Your task to perform on an android device: Open the calendar and show me this week's events Image 0: 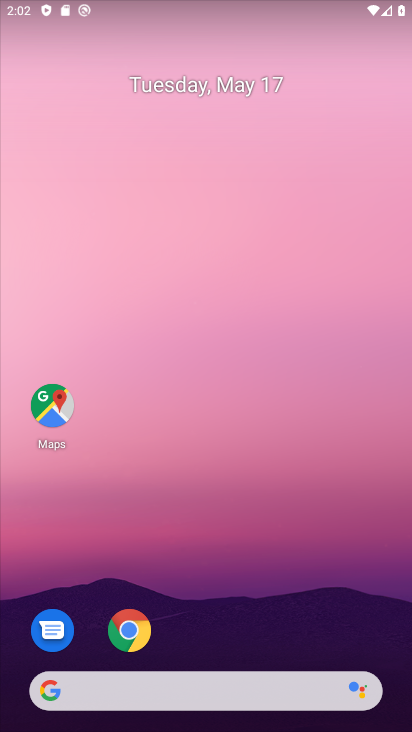
Step 0: drag from (210, 522) to (202, 117)
Your task to perform on an android device: Open the calendar and show me this week's events Image 1: 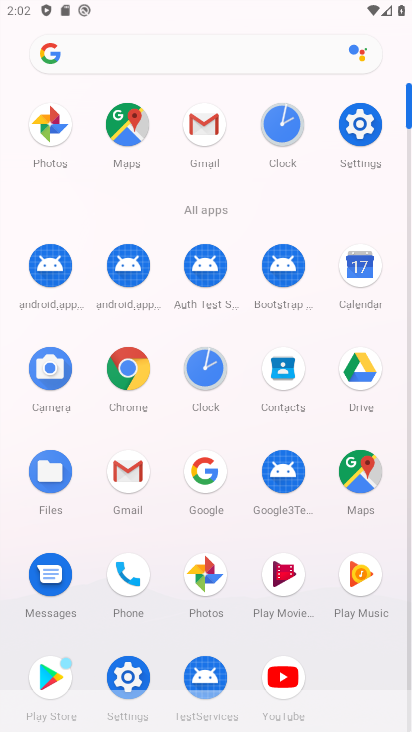
Step 1: click (305, 134)
Your task to perform on an android device: Open the calendar and show me this week's events Image 2: 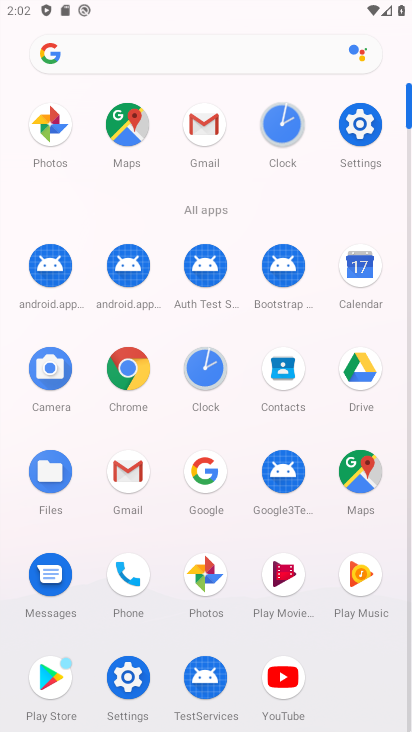
Step 2: click (222, 209)
Your task to perform on an android device: Open the calendar and show me this week's events Image 3: 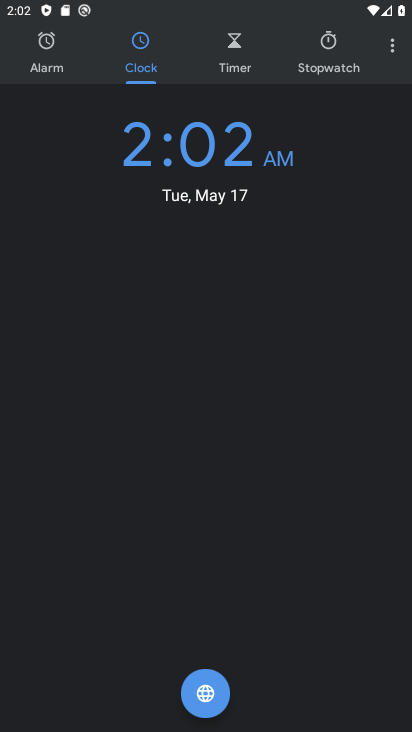
Step 3: press home button
Your task to perform on an android device: Open the calendar and show me this week's events Image 4: 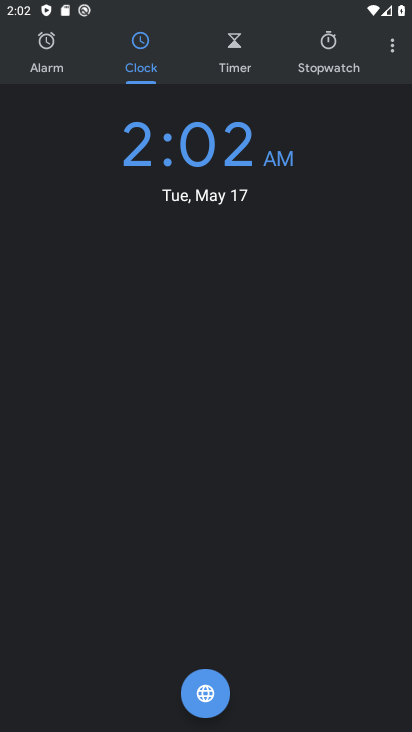
Step 4: press home button
Your task to perform on an android device: Open the calendar and show me this week's events Image 5: 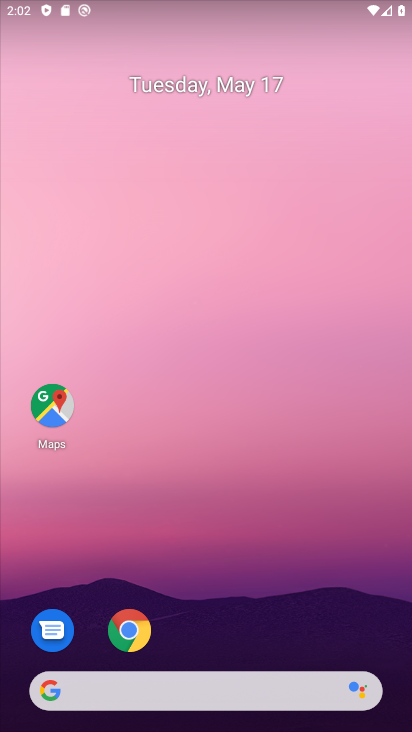
Step 5: drag from (276, 589) to (278, 16)
Your task to perform on an android device: Open the calendar and show me this week's events Image 6: 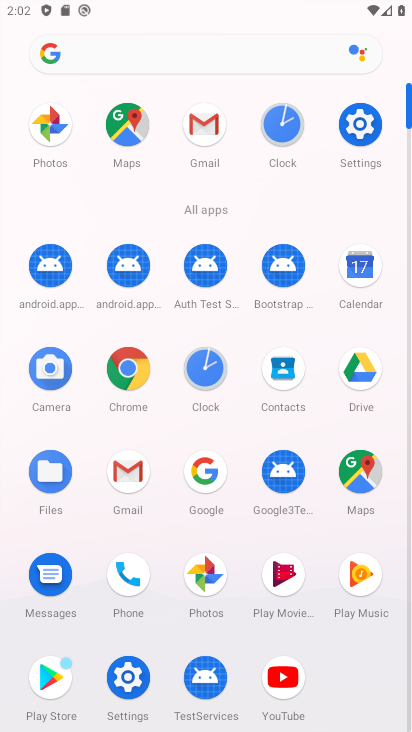
Step 6: click (346, 275)
Your task to perform on an android device: Open the calendar and show me this week's events Image 7: 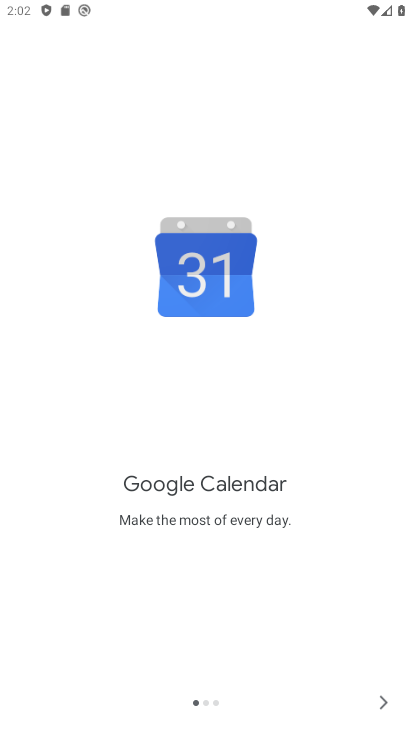
Step 7: click (374, 691)
Your task to perform on an android device: Open the calendar and show me this week's events Image 8: 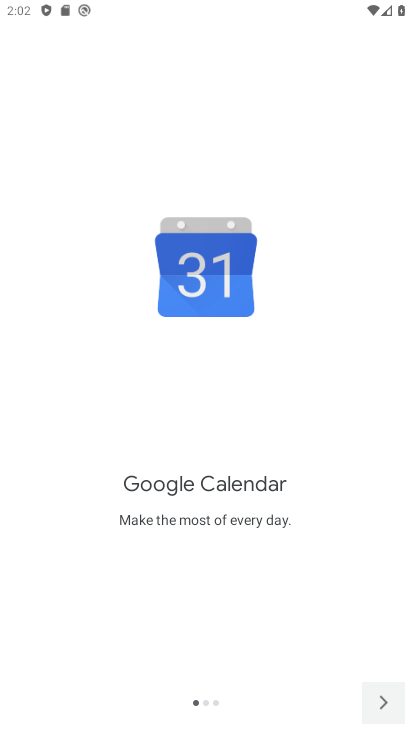
Step 8: click (375, 690)
Your task to perform on an android device: Open the calendar and show me this week's events Image 9: 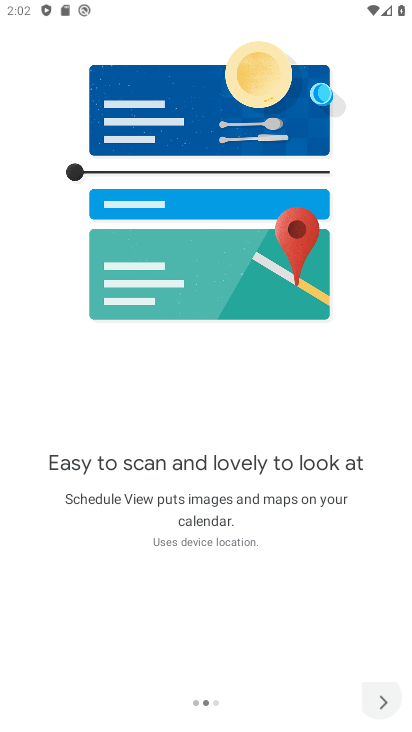
Step 9: click (375, 690)
Your task to perform on an android device: Open the calendar and show me this week's events Image 10: 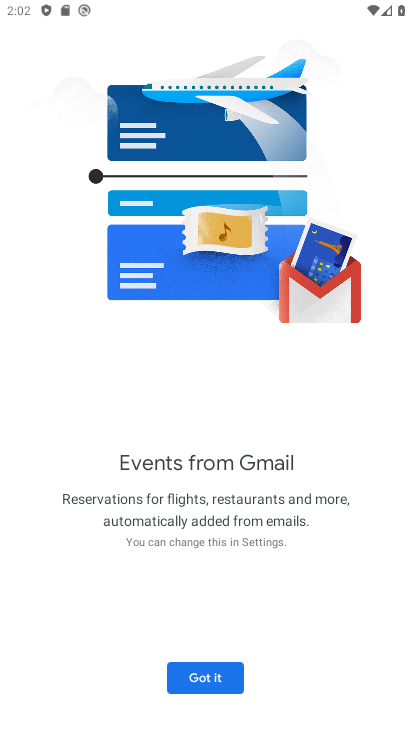
Step 10: click (380, 691)
Your task to perform on an android device: Open the calendar and show me this week's events Image 11: 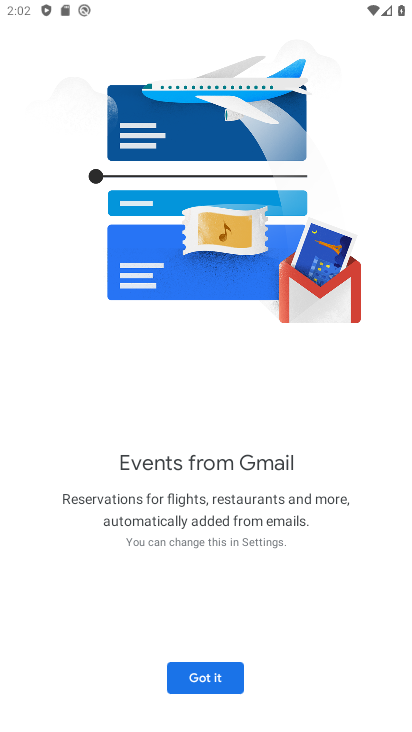
Step 11: click (224, 674)
Your task to perform on an android device: Open the calendar and show me this week's events Image 12: 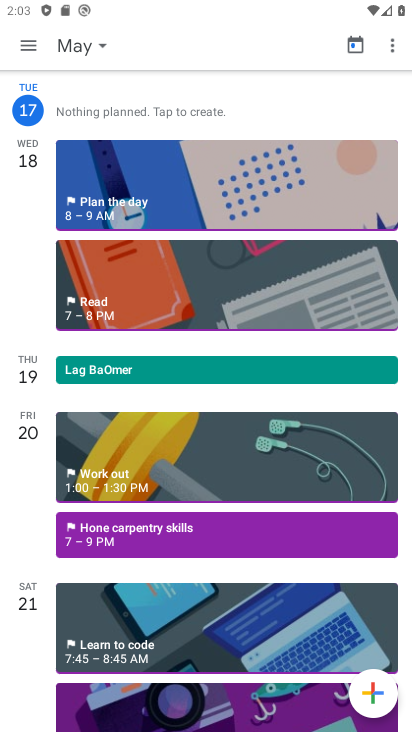
Step 12: click (142, 633)
Your task to perform on an android device: Open the calendar and show me this week's events Image 13: 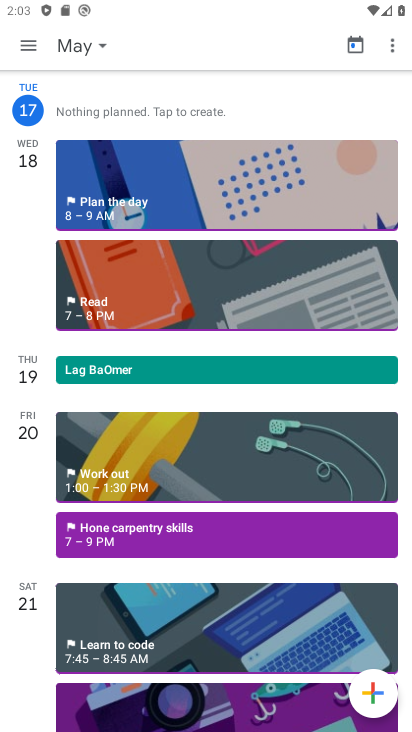
Step 13: task complete